Your task to perform on an android device: check battery use Image 0: 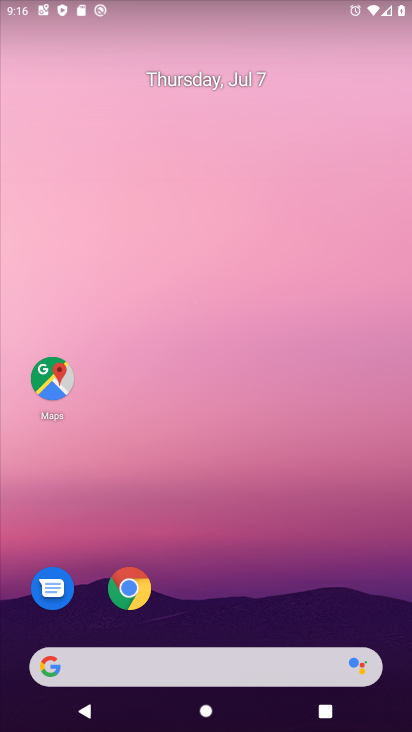
Step 0: drag from (216, 608) to (269, 125)
Your task to perform on an android device: check battery use Image 1: 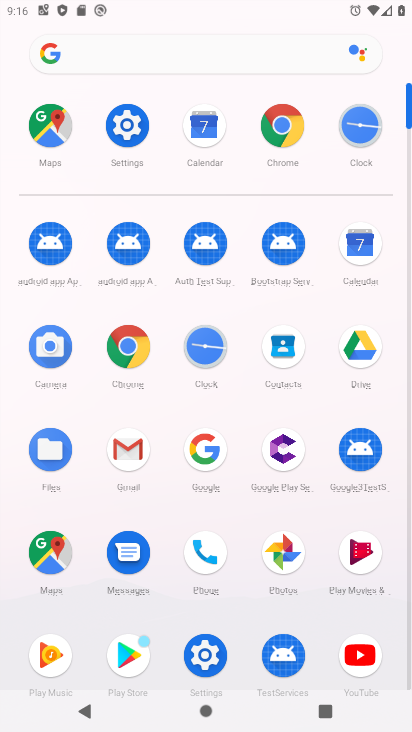
Step 1: click (124, 117)
Your task to perform on an android device: check battery use Image 2: 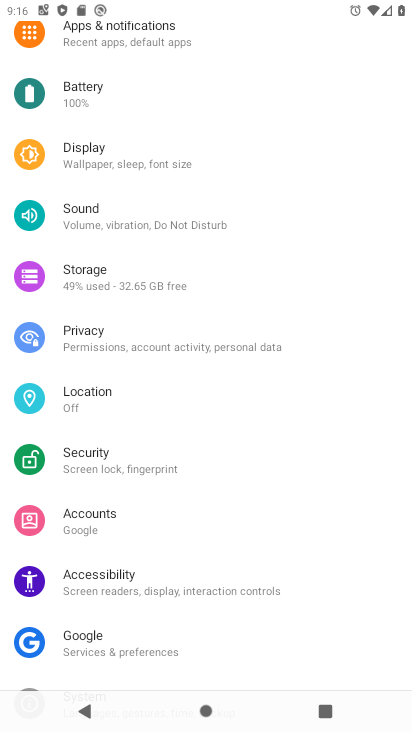
Step 2: click (111, 97)
Your task to perform on an android device: check battery use Image 3: 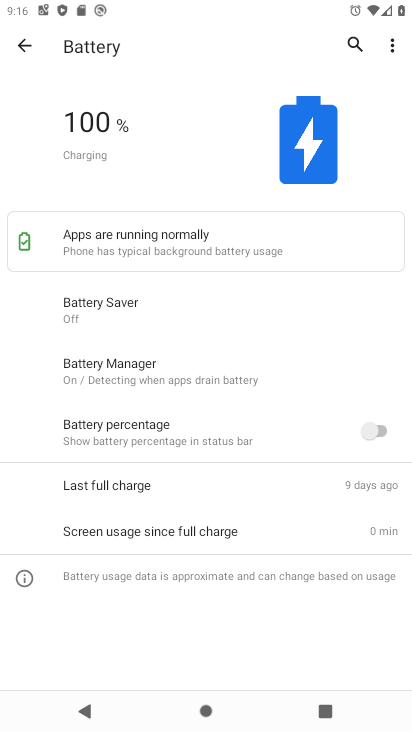
Step 3: click (391, 39)
Your task to perform on an android device: check battery use Image 4: 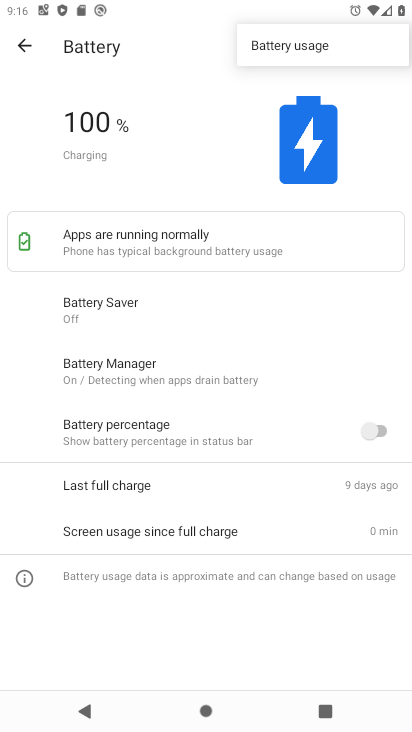
Step 4: click (294, 51)
Your task to perform on an android device: check battery use Image 5: 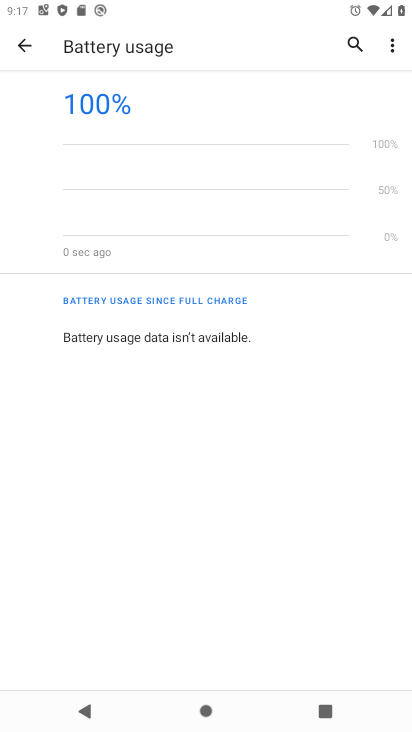
Step 5: task complete